Your task to perform on an android device: Open display settings Image 0: 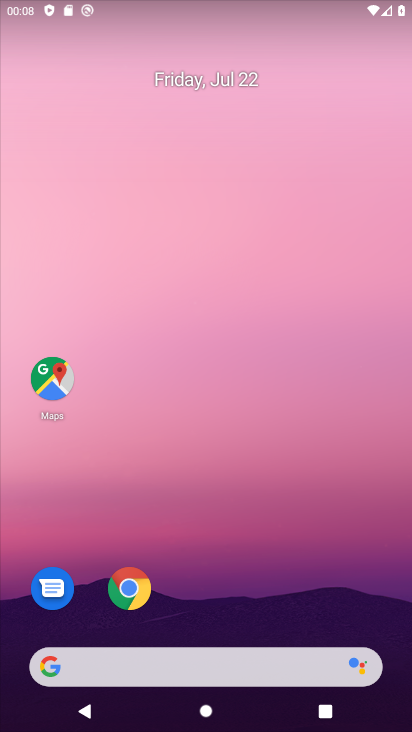
Step 0: drag from (186, 605) to (257, 10)
Your task to perform on an android device: Open display settings Image 1: 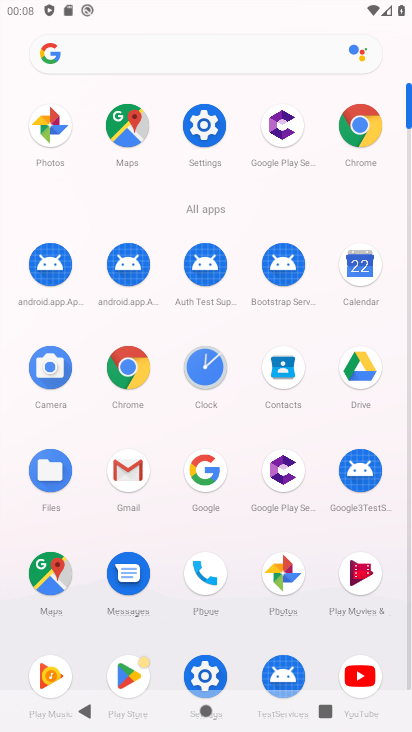
Step 1: click (192, 128)
Your task to perform on an android device: Open display settings Image 2: 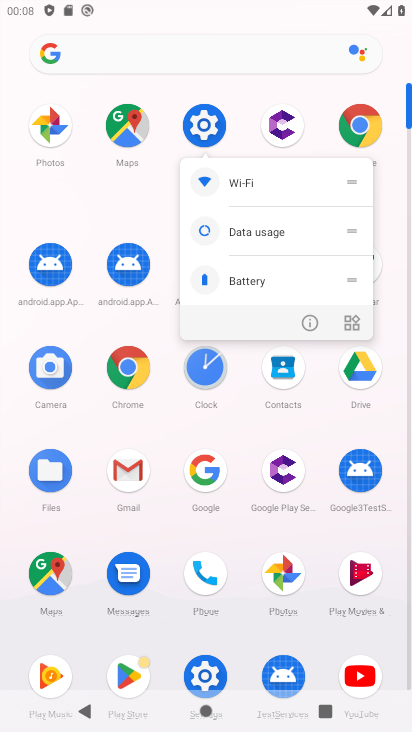
Step 2: click (199, 117)
Your task to perform on an android device: Open display settings Image 3: 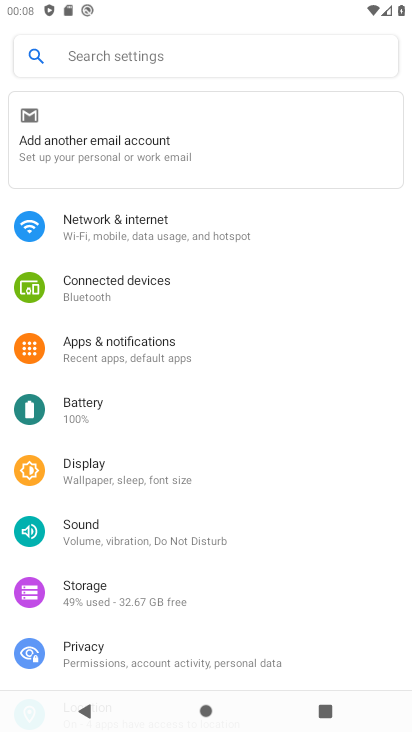
Step 3: click (104, 474)
Your task to perform on an android device: Open display settings Image 4: 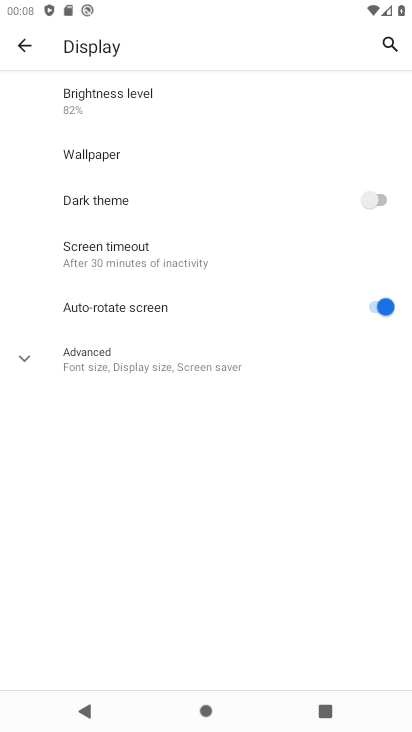
Step 4: task complete